Your task to perform on an android device: add a contact Image 0: 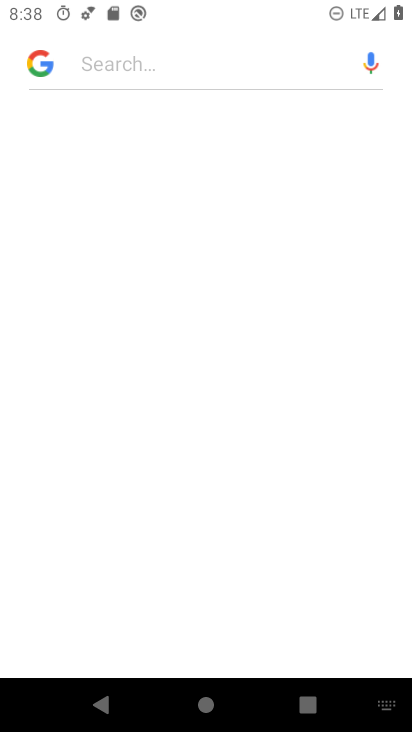
Step 0: click (44, 554)
Your task to perform on an android device: add a contact Image 1: 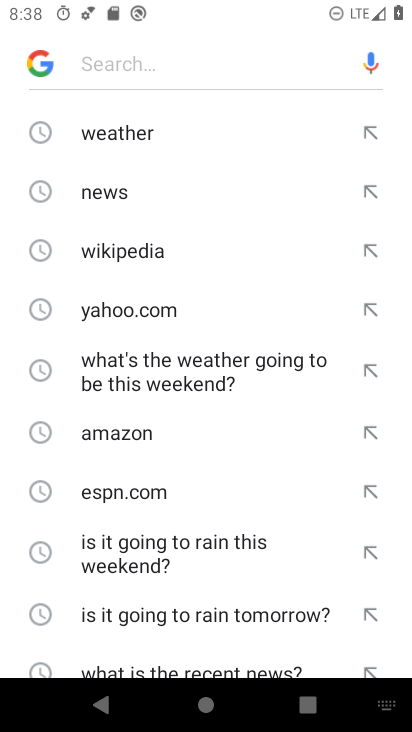
Step 1: press home button
Your task to perform on an android device: add a contact Image 2: 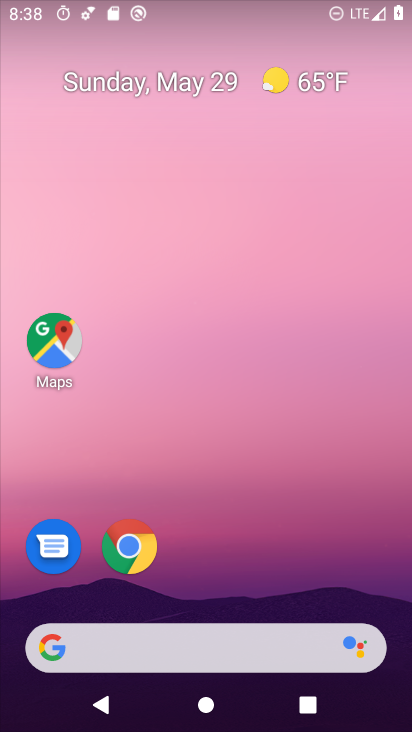
Step 2: drag from (206, 620) to (217, 184)
Your task to perform on an android device: add a contact Image 3: 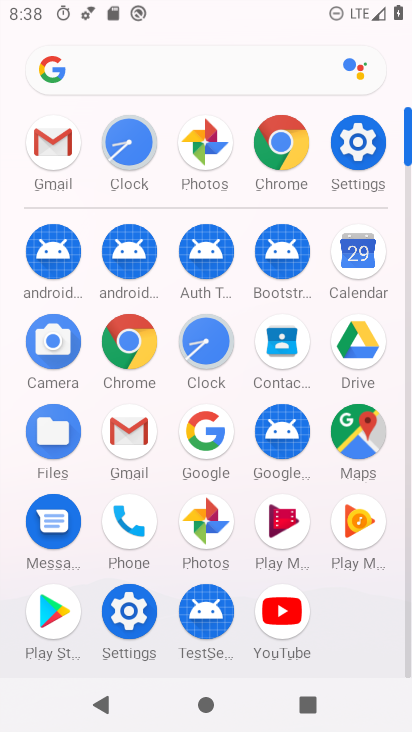
Step 3: click (133, 506)
Your task to perform on an android device: add a contact Image 4: 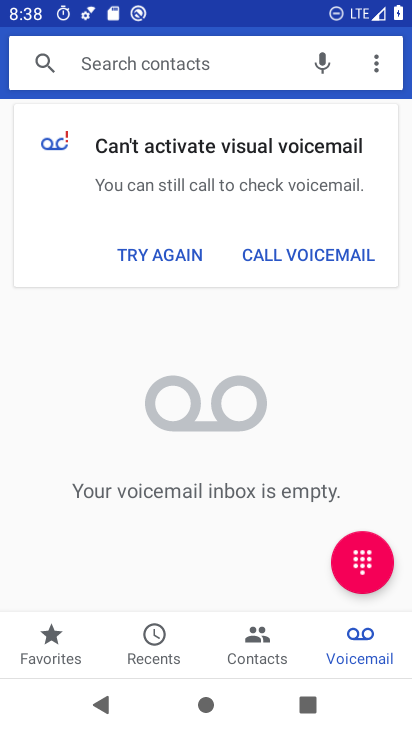
Step 4: click (368, 584)
Your task to perform on an android device: add a contact Image 5: 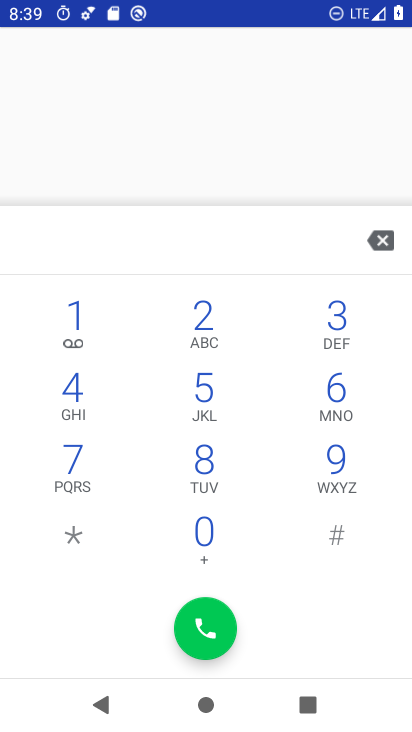
Step 5: click (68, 468)
Your task to perform on an android device: add a contact Image 6: 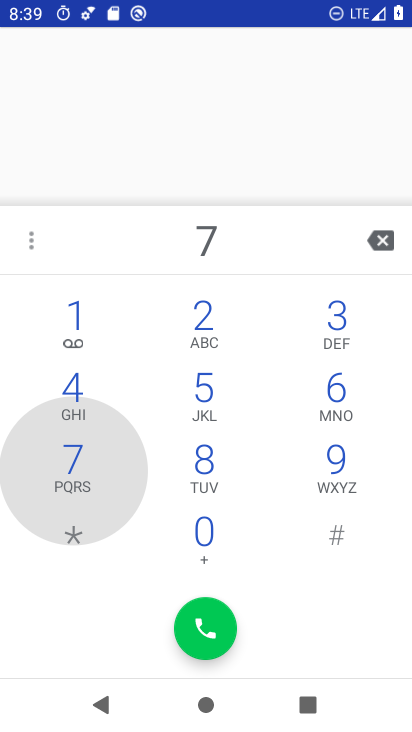
Step 6: click (207, 472)
Your task to perform on an android device: add a contact Image 7: 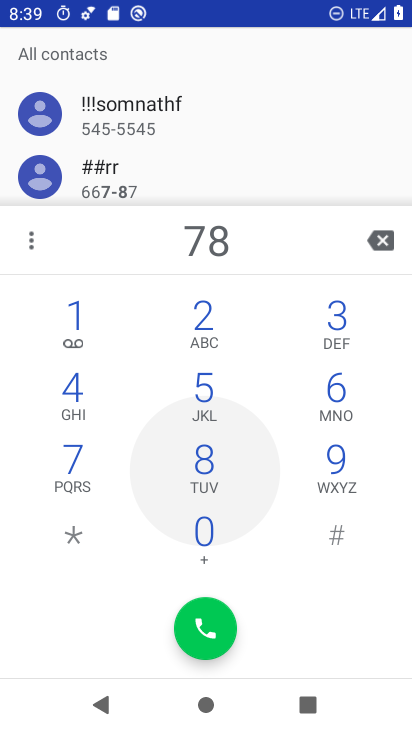
Step 7: click (314, 471)
Your task to perform on an android device: add a contact Image 8: 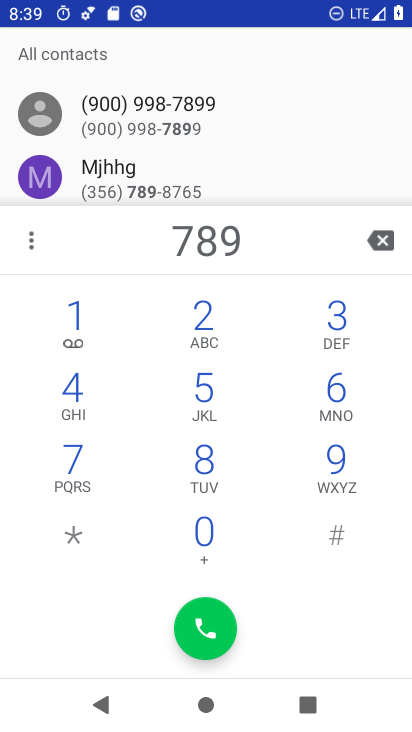
Step 8: click (220, 376)
Your task to perform on an android device: add a contact Image 9: 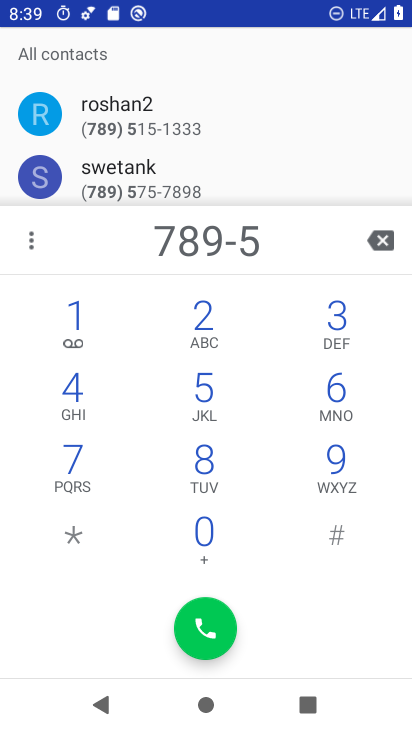
Step 9: click (210, 311)
Your task to perform on an android device: add a contact Image 10: 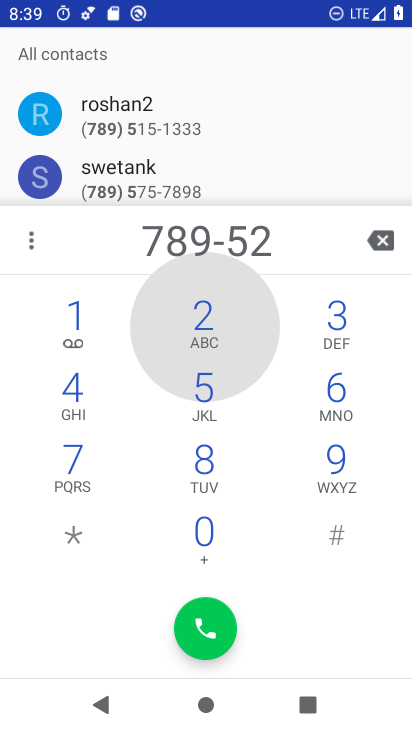
Step 10: click (215, 395)
Your task to perform on an android device: add a contact Image 11: 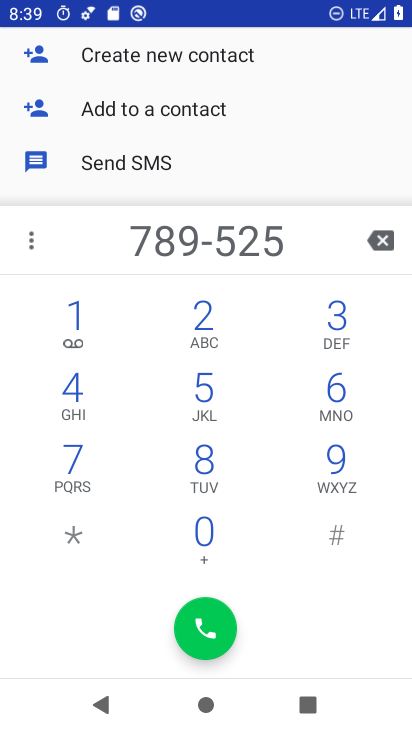
Step 11: drag from (79, 318) to (81, 408)
Your task to perform on an android device: add a contact Image 12: 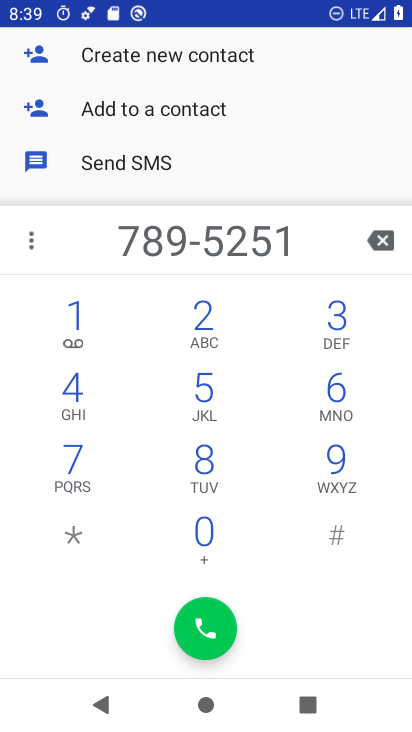
Step 12: click (208, 543)
Your task to perform on an android device: add a contact Image 13: 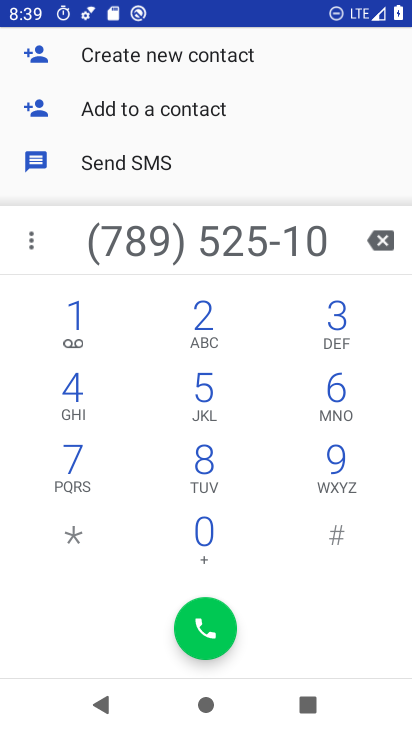
Step 13: click (189, 310)
Your task to perform on an android device: add a contact Image 14: 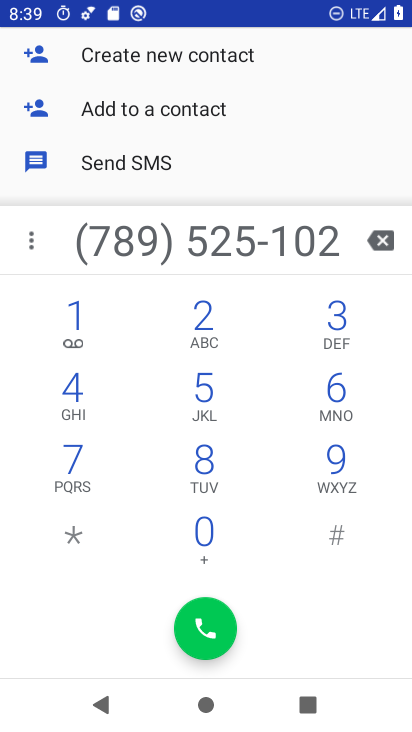
Step 14: click (336, 320)
Your task to perform on an android device: add a contact Image 15: 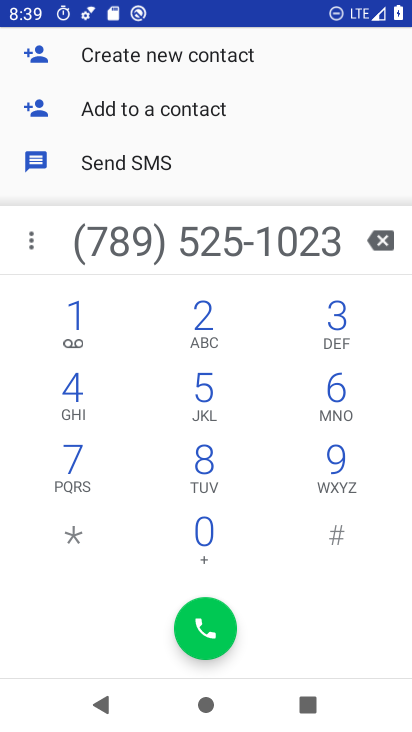
Step 15: click (131, 103)
Your task to perform on an android device: add a contact Image 16: 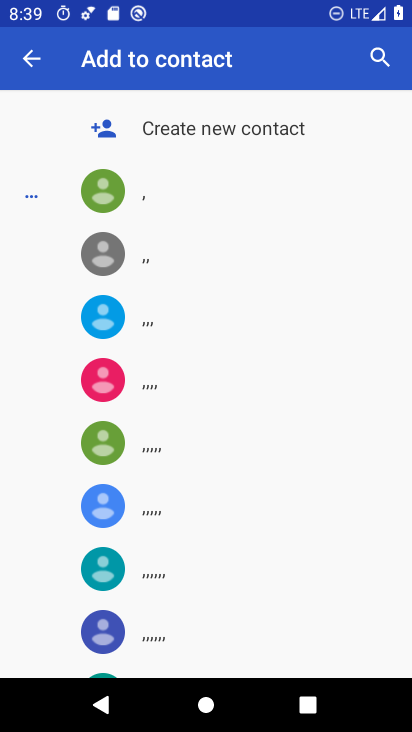
Step 16: click (211, 114)
Your task to perform on an android device: add a contact Image 17: 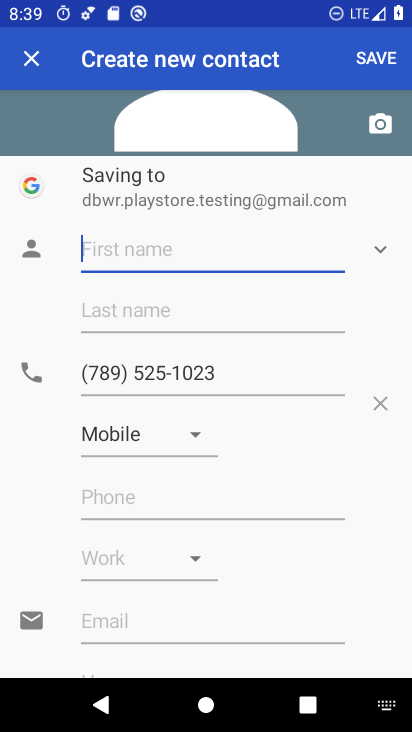
Step 17: type "lekha"
Your task to perform on an android device: add a contact Image 18: 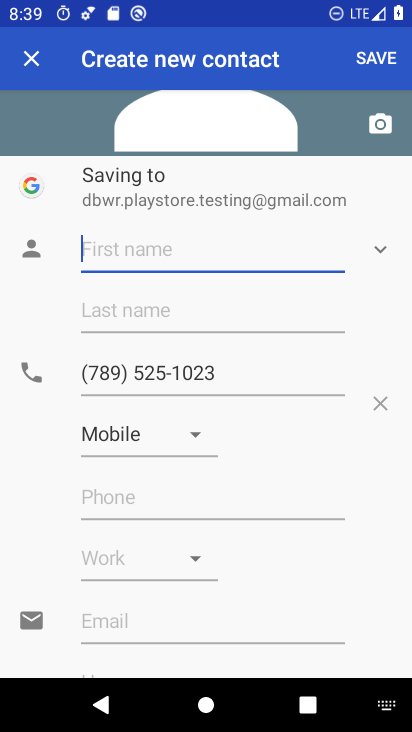
Step 18: click (127, 304)
Your task to perform on an android device: add a contact Image 19: 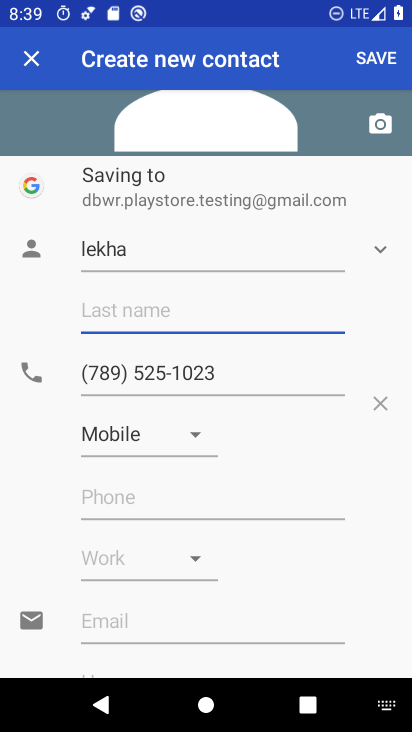
Step 19: type "patra"
Your task to perform on an android device: add a contact Image 20: 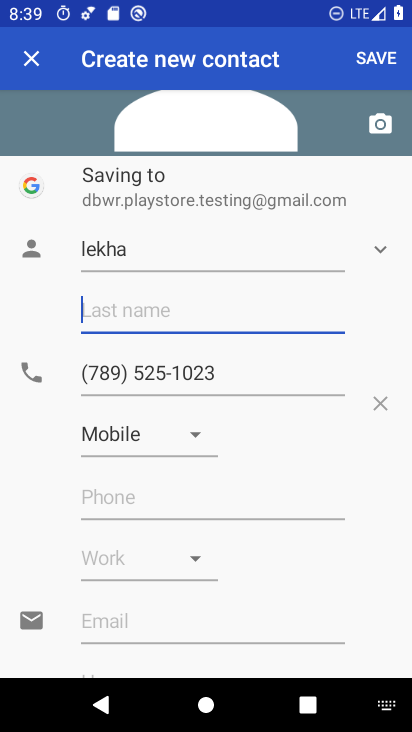
Step 20: click (394, 45)
Your task to perform on an android device: add a contact Image 21: 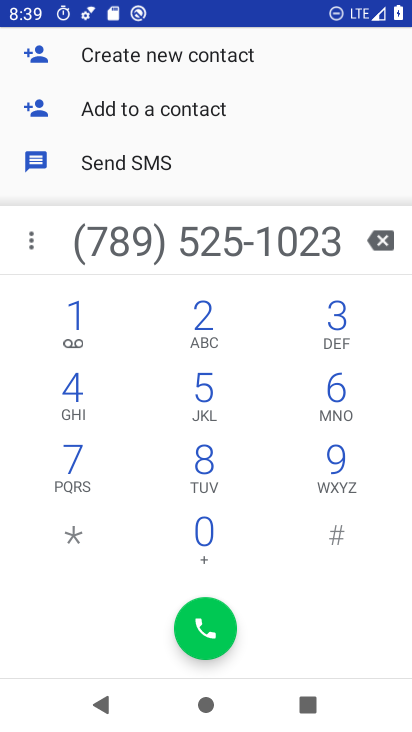
Step 21: task complete